Your task to perform on an android device: Go to Google maps Image 0: 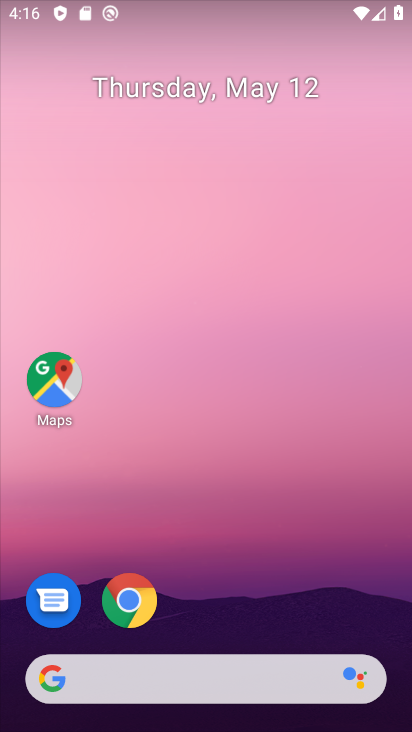
Step 0: drag from (170, 620) to (180, 44)
Your task to perform on an android device: Go to Google maps Image 1: 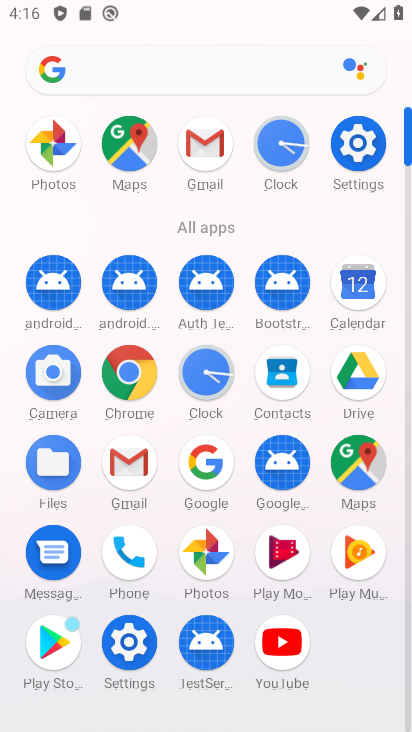
Step 1: click (335, 465)
Your task to perform on an android device: Go to Google maps Image 2: 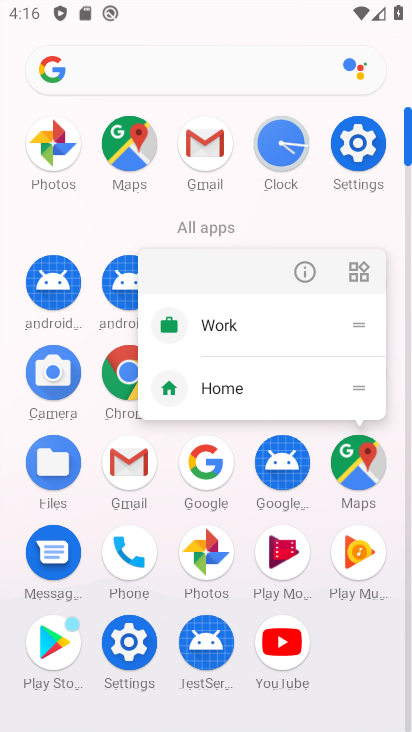
Step 2: click (293, 270)
Your task to perform on an android device: Go to Google maps Image 3: 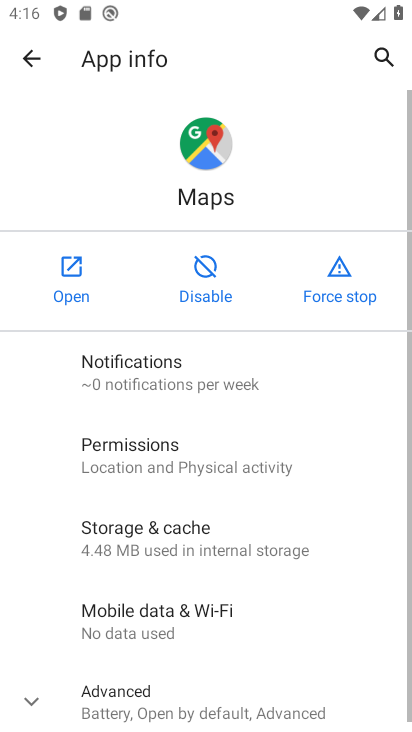
Step 3: click (69, 283)
Your task to perform on an android device: Go to Google maps Image 4: 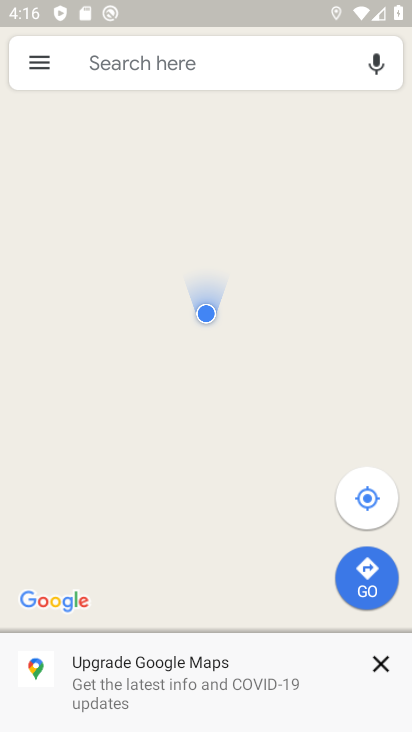
Step 4: task complete